Your task to perform on an android device: add a label to a message in the gmail app Image 0: 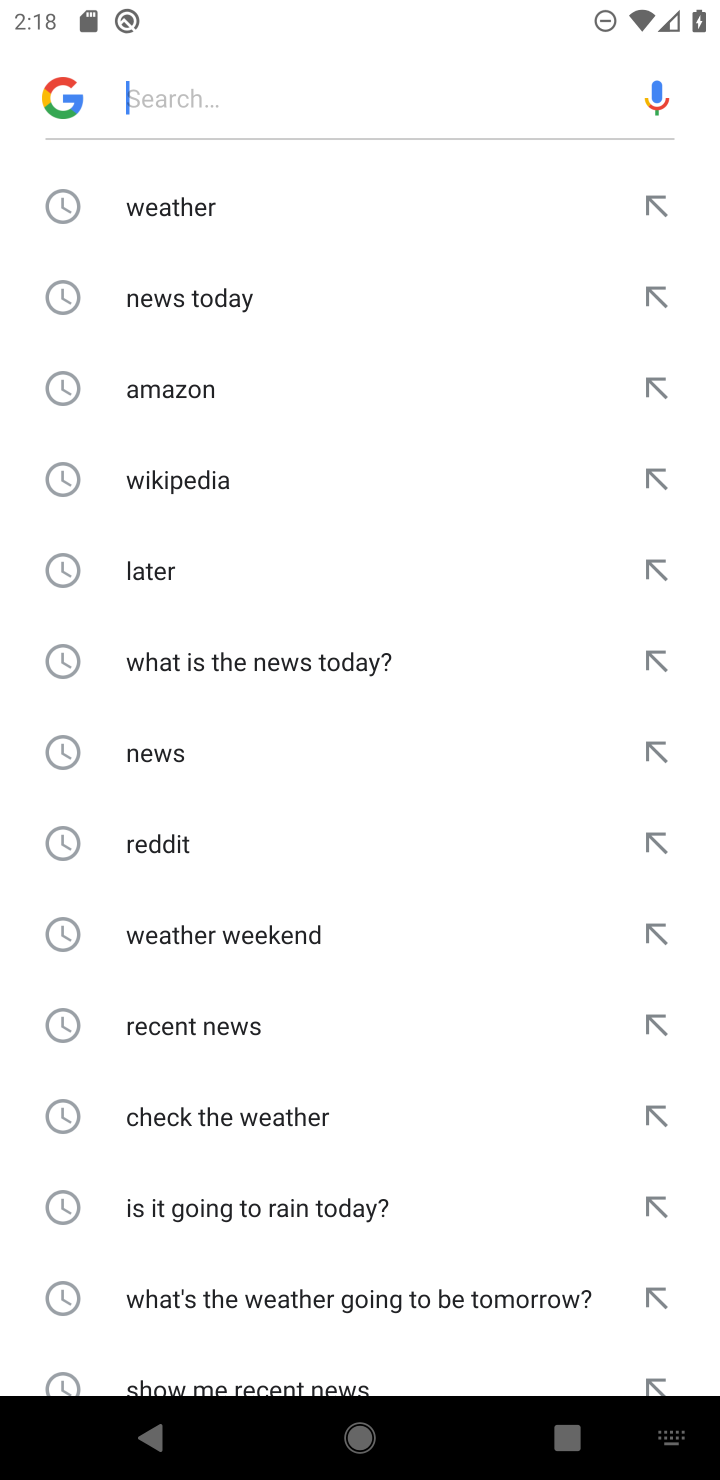
Step 0: press home button
Your task to perform on an android device: add a label to a message in the gmail app Image 1: 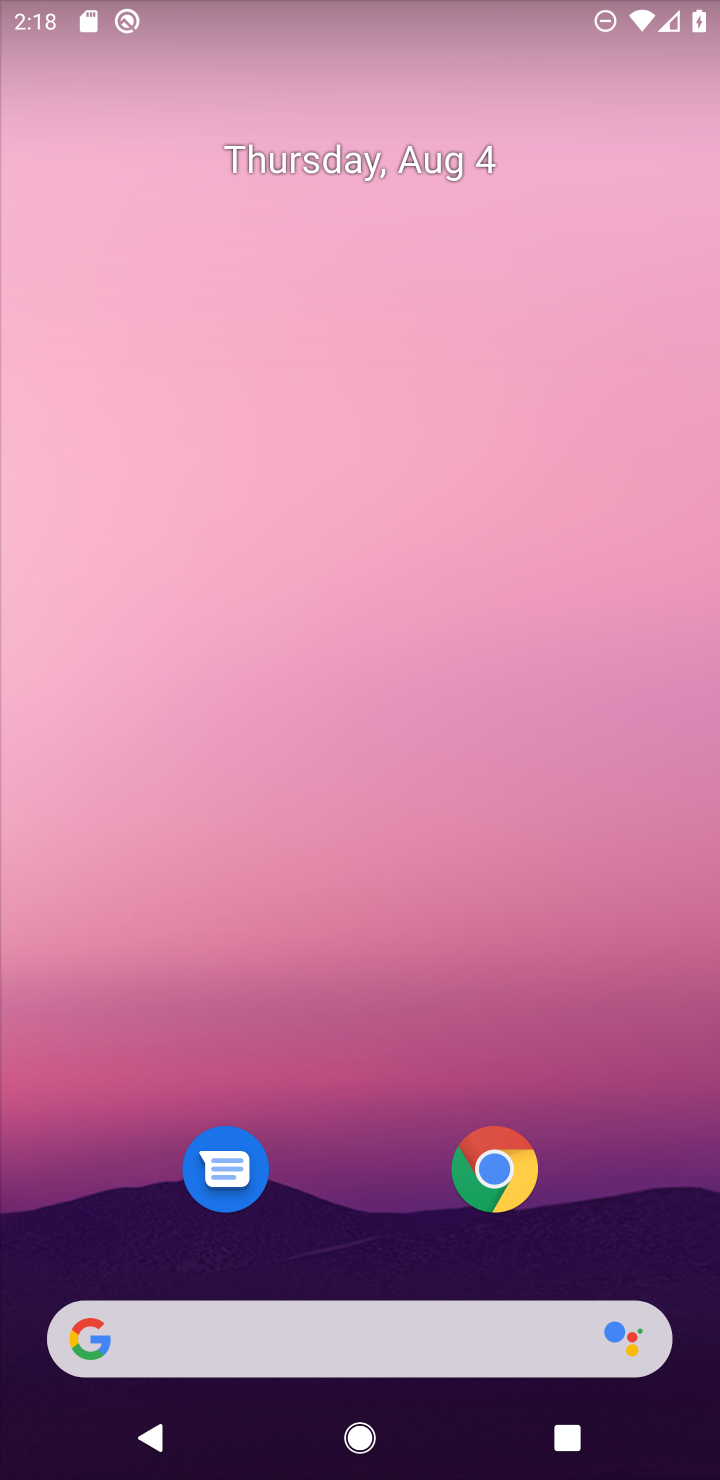
Step 1: drag from (351, 1223) to (389, 148)
Your task to perform on an android device: add a label to a message in the gmail app Image 2: 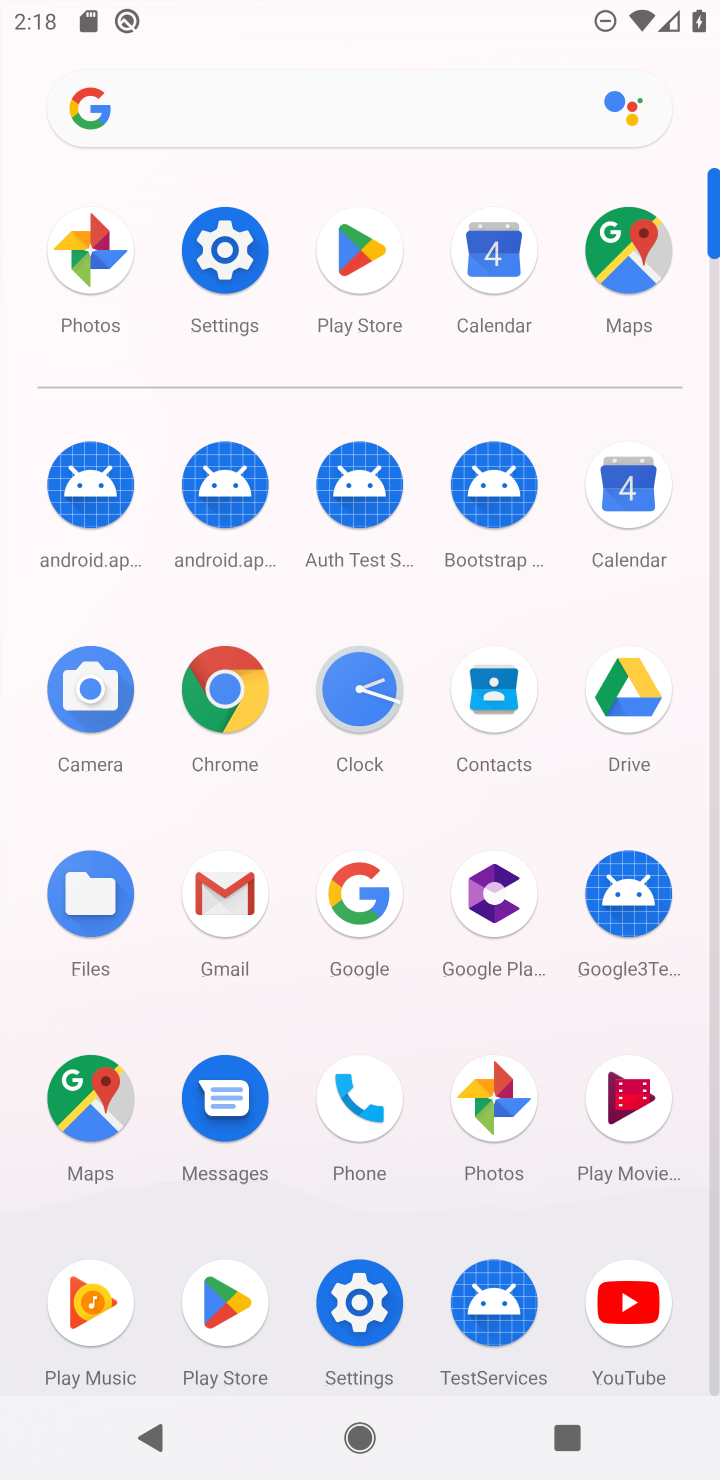
Step 2: click (219, 897)
Your task to perform on an android device: add a label to a message in the gmail app Image 3: 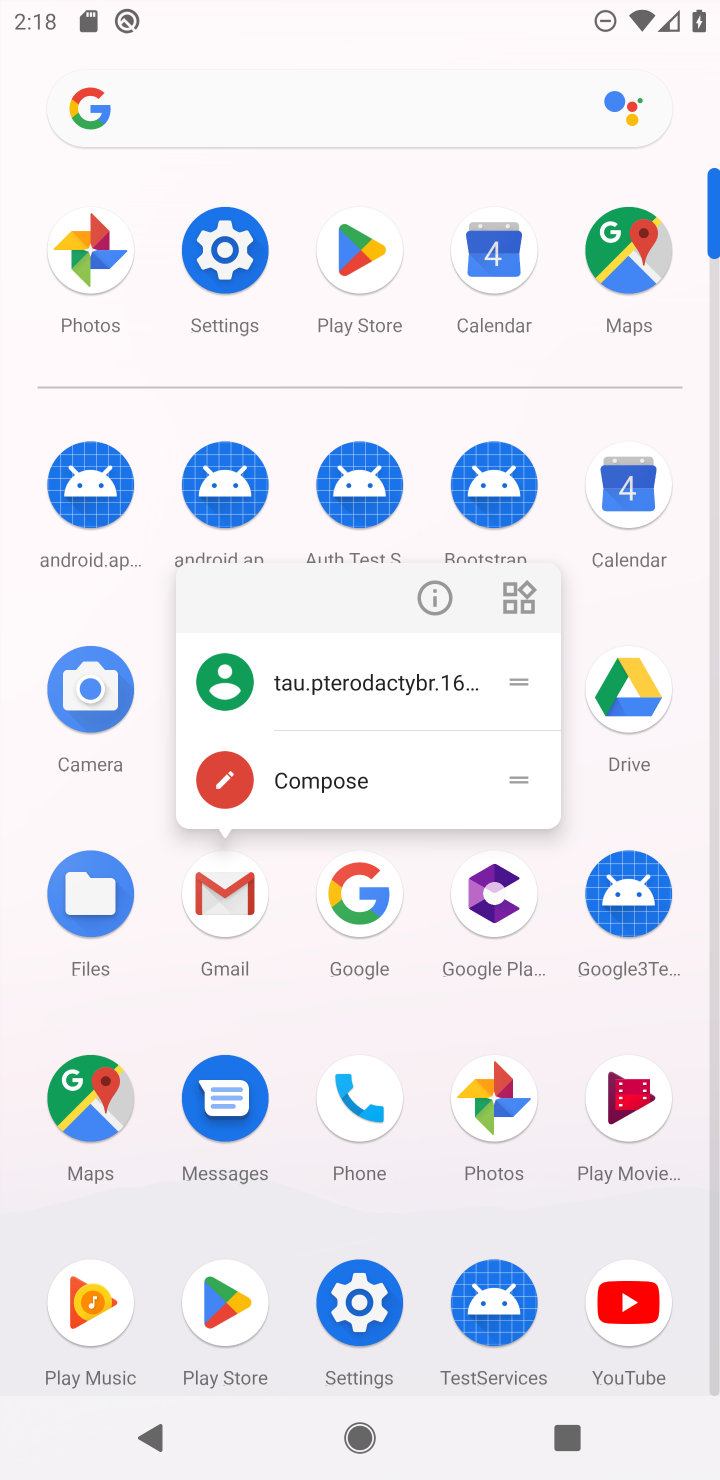
Step 3: click (41, 900)
Your task to perform on an android device: add a label to a message in the gmail app Image 4: 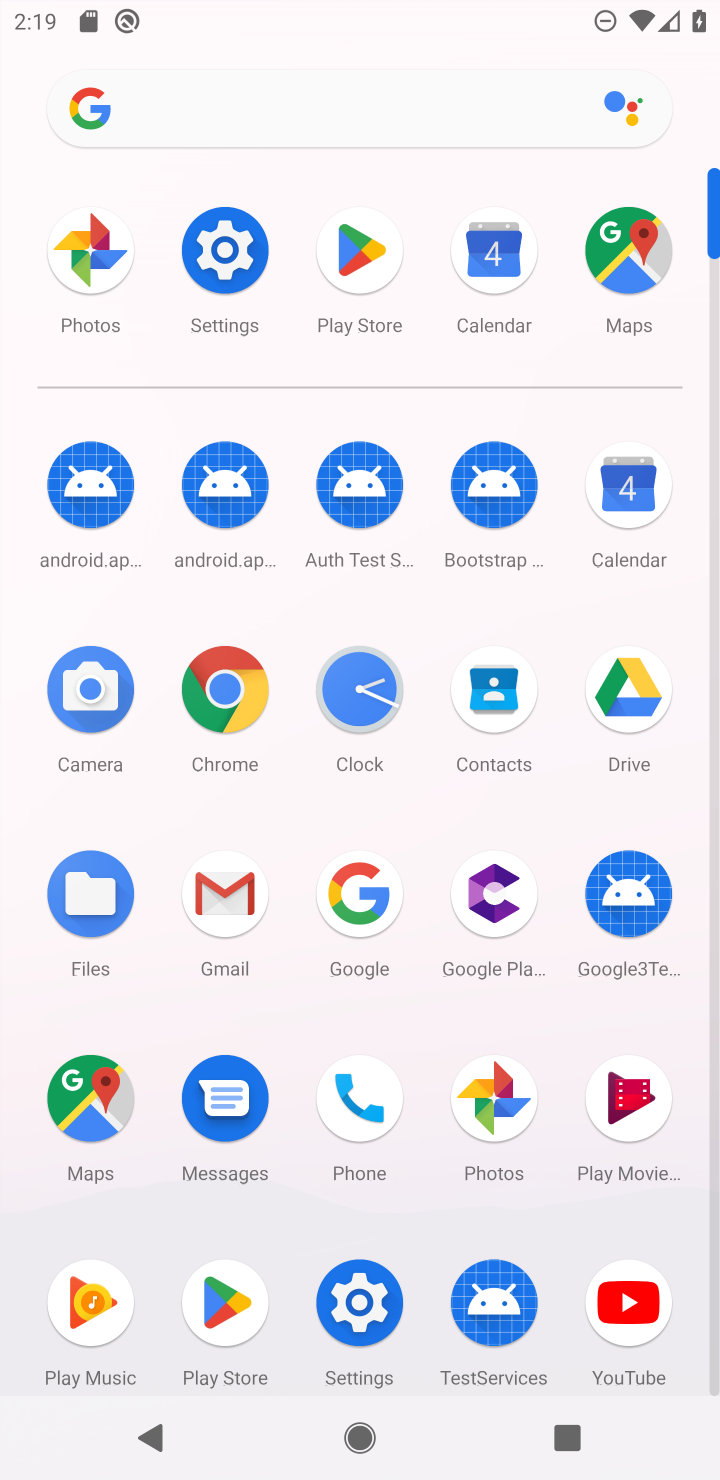
Step 4: click (225, 903)
Your task to perform on an android device: add a label to a message in the gmail app Image 5: 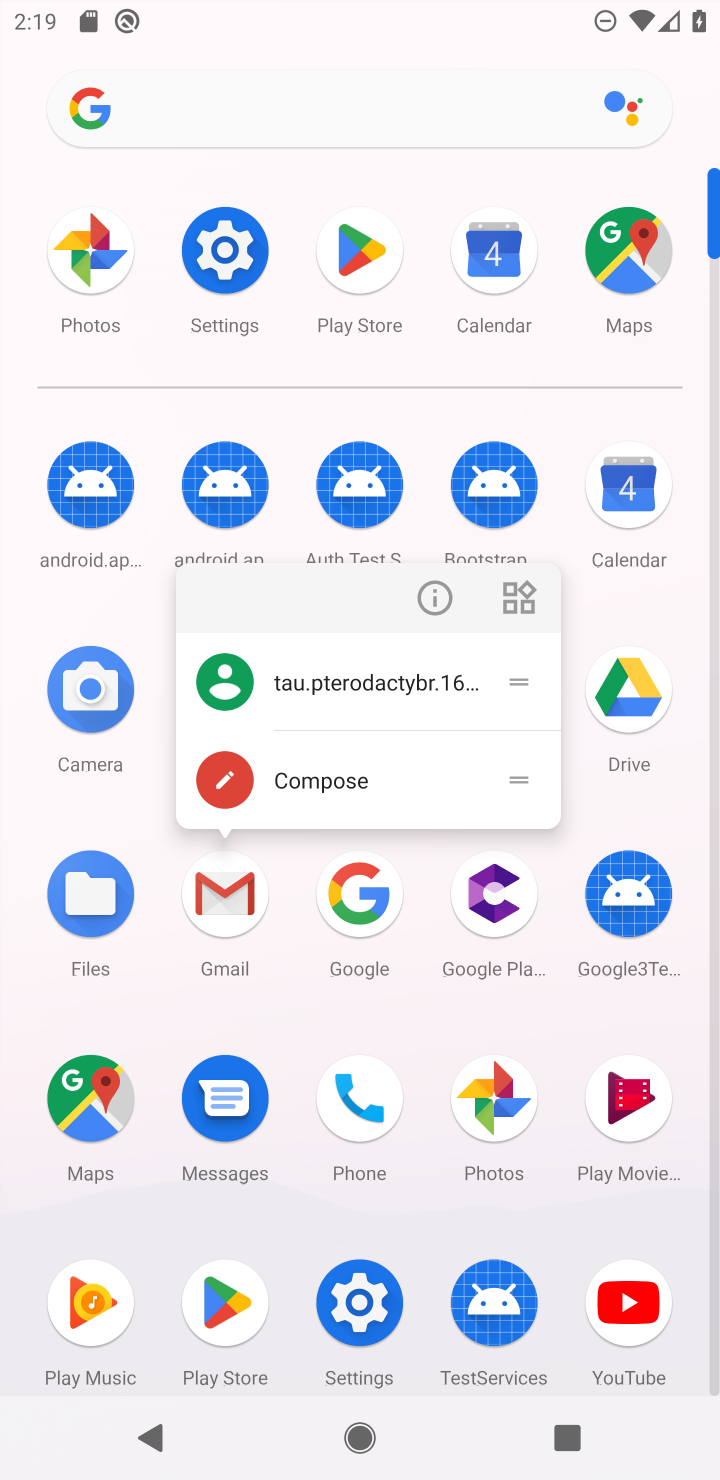
Step 5: click (225, 903)
Your task to perform on an android device: add a label to a message in the gmail app Image 6: 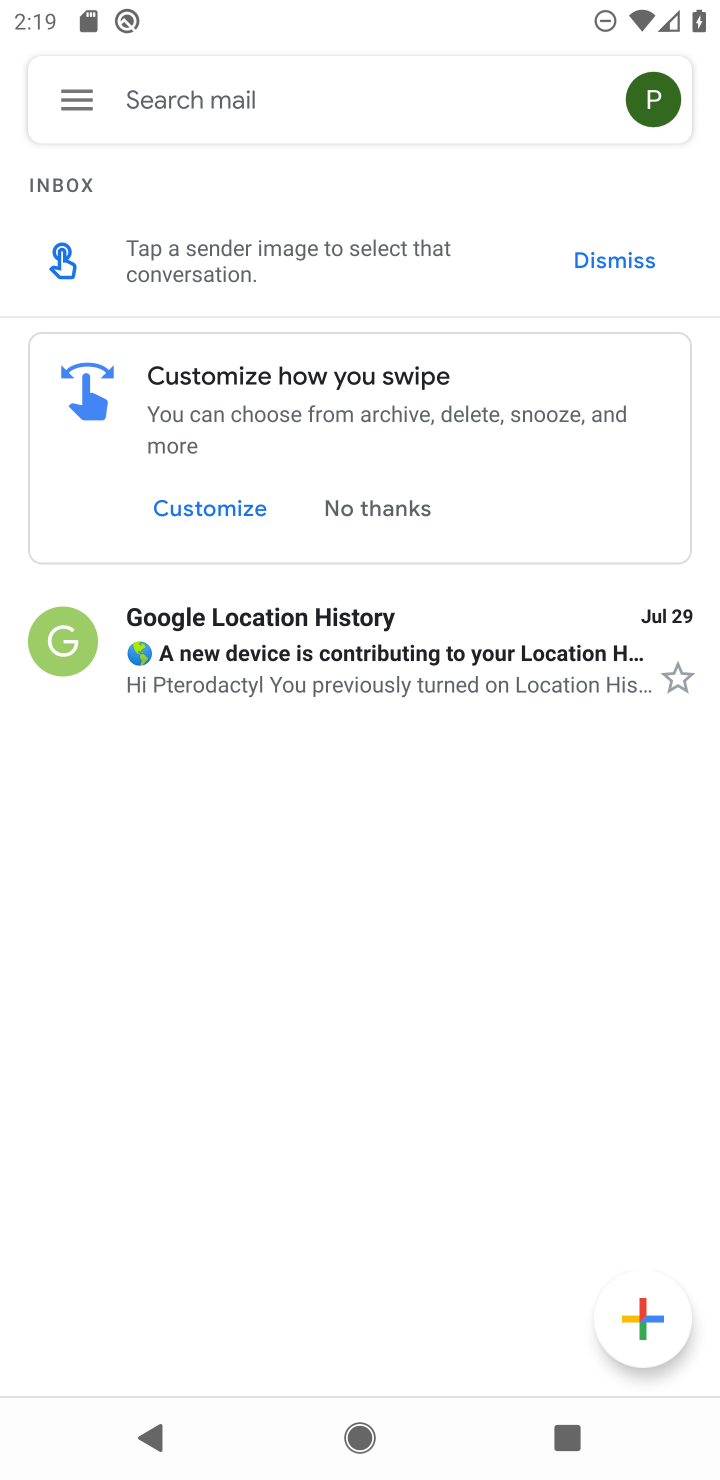
Step 6: click (83, 100)
Your task to perform on an android device: add a label to a message in the gmail app Image 7: 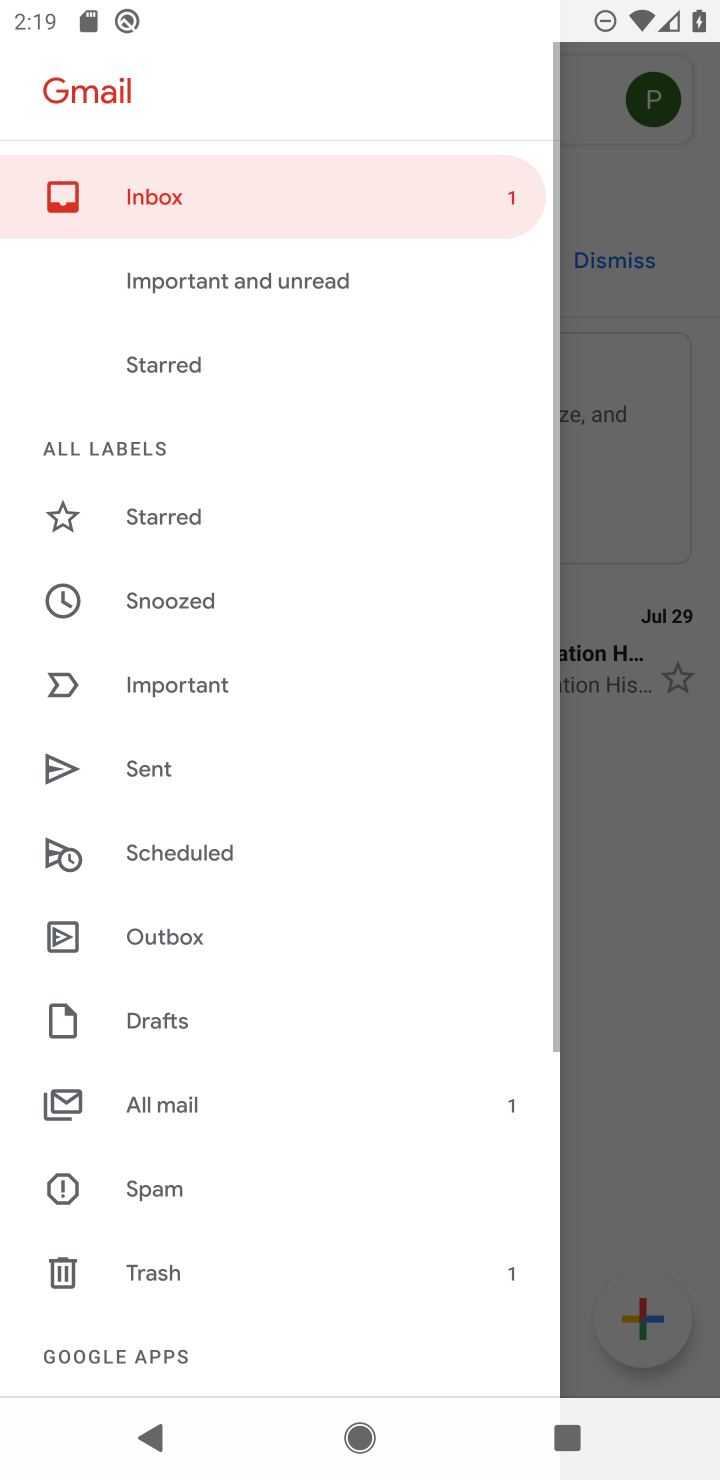
Step 7: click (204, 1113)
Your task to perform on an android device: add a label to a message in the gmail app Image 8: 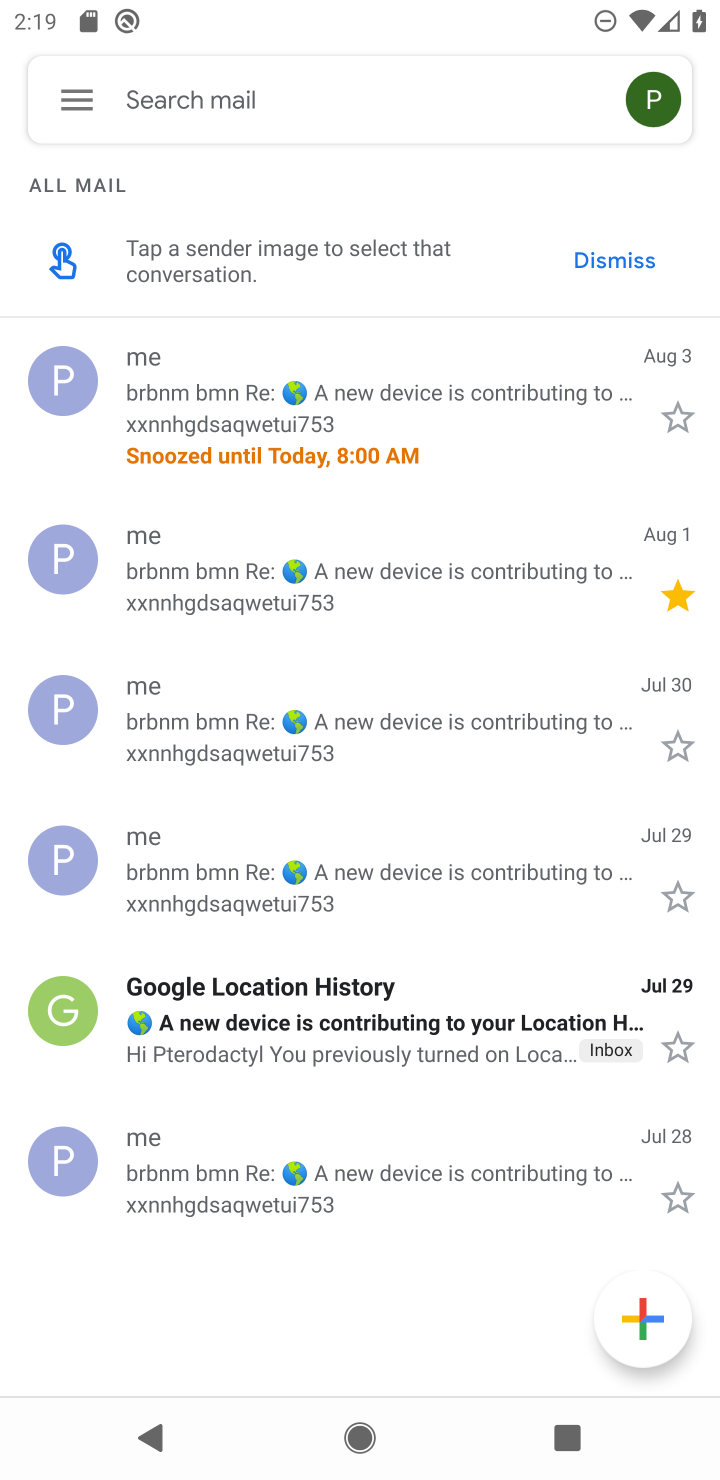
Step 8: click (295, 883)
Your task to perform on an android device: add a label to a message in the gmail app Image 9: 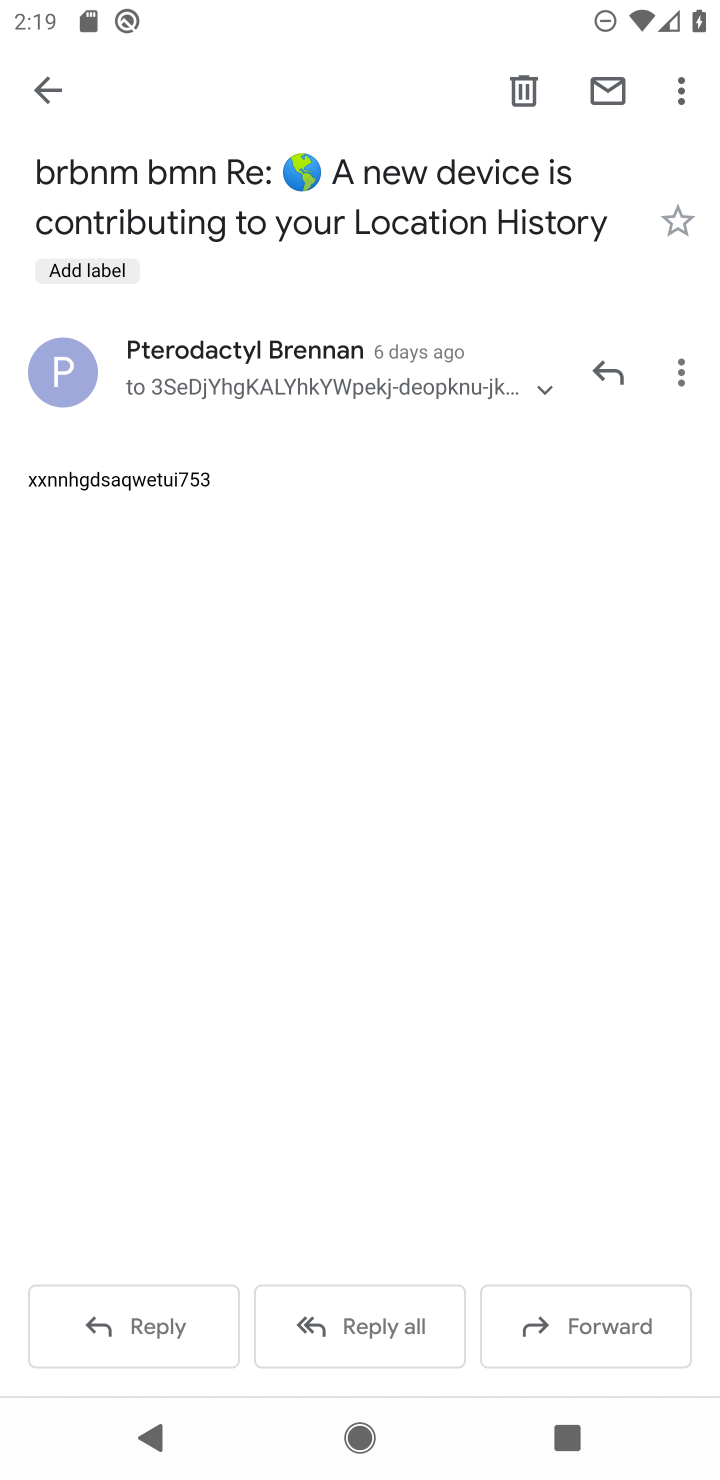
Step 9: click (101, 275)
Your task to perform on an android device: add a label to a message in the gmail app Image 10: 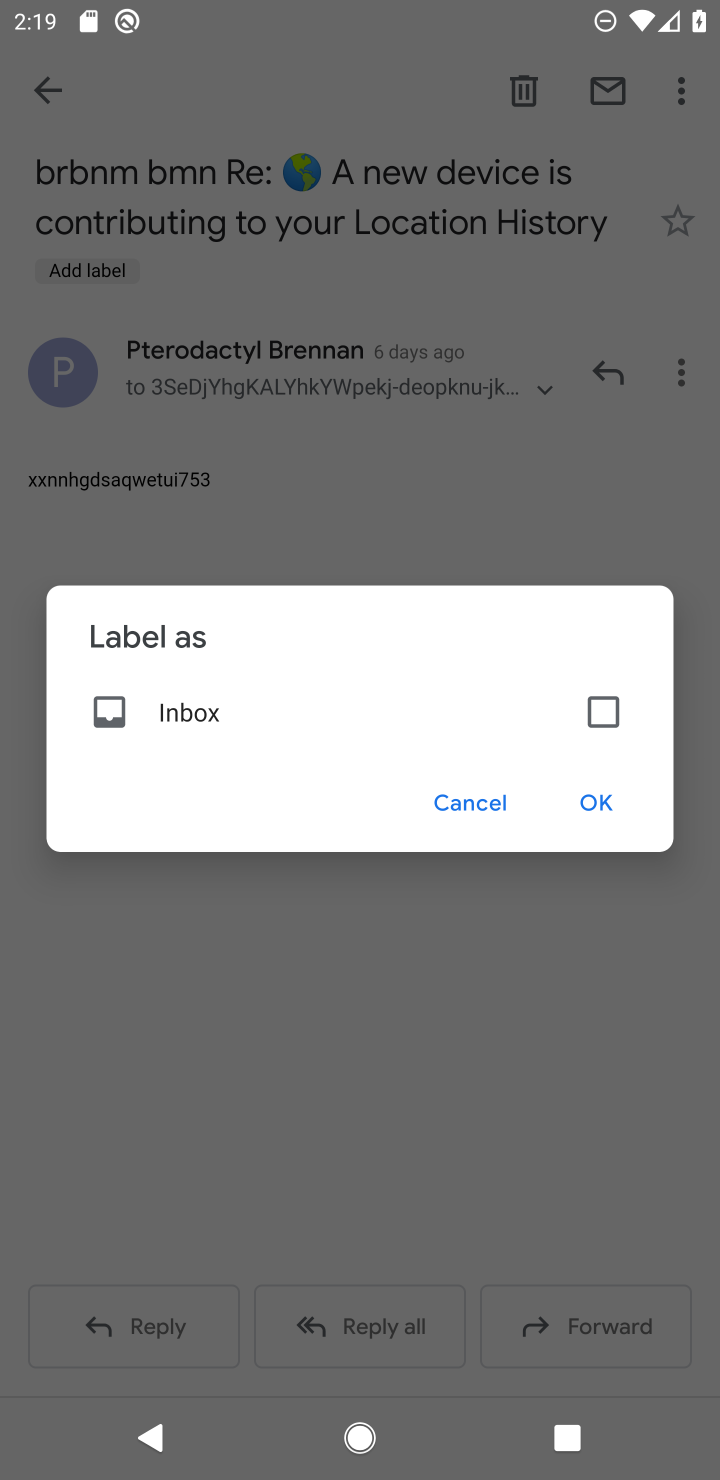
Step 10: click (601, 731)
Your task to perform on an android device: add a label to a message in the gmail app Image 11: 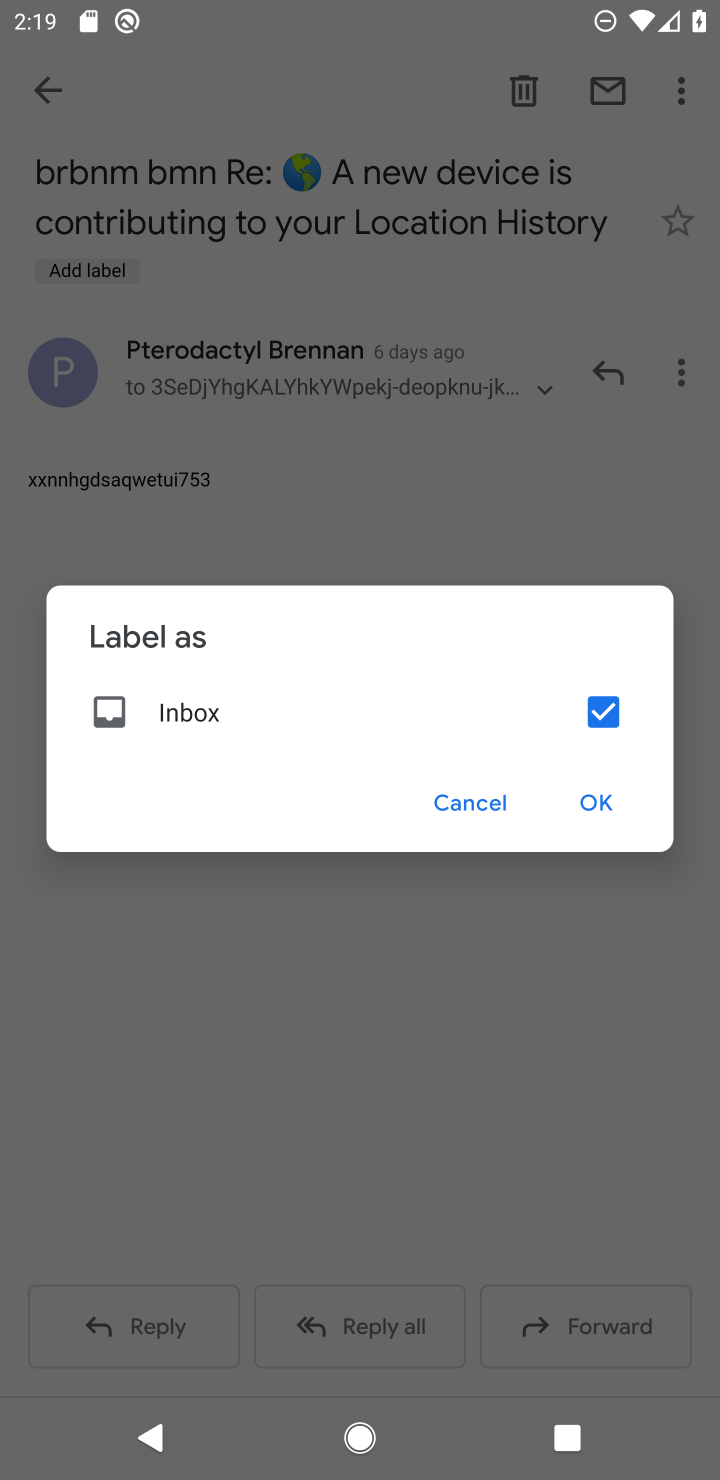
Step 11: click (607, 812)
Your task to perform on an android device: add a label to a message in the gmail app Image 12: 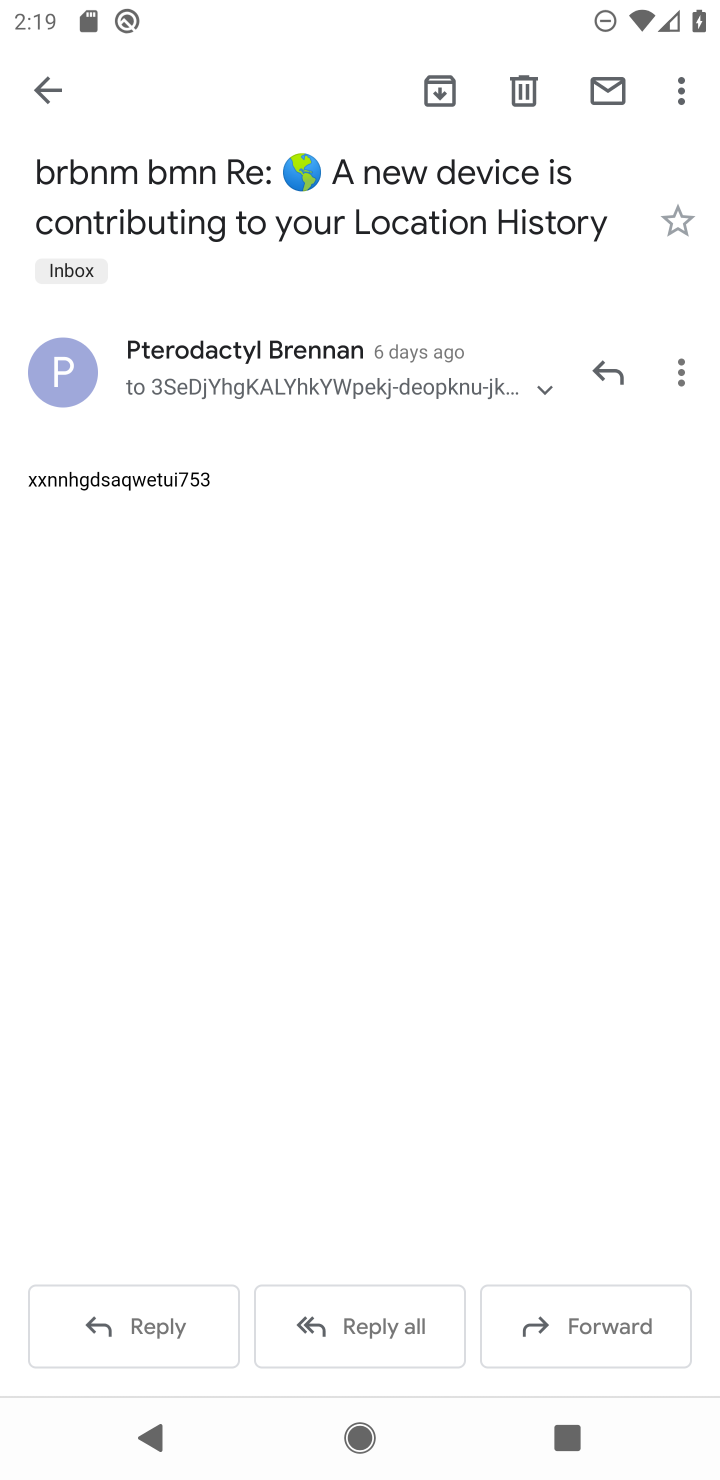
Step 12: task complete